Your task to perform on an android device: Toggle the flashlight Image 0: 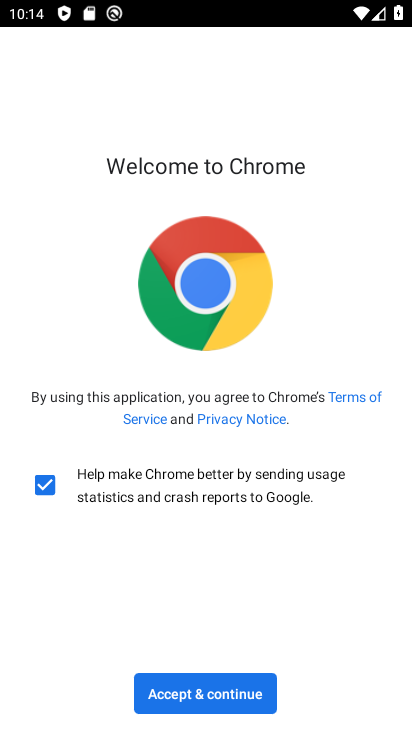
Step 0: press home button
Your task to perform on an android device: Toggle the flashlight Image 1: 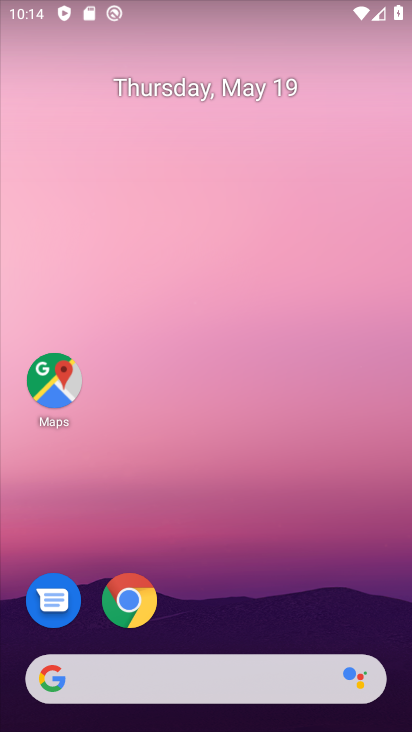
Step 1: drag from (270, 8) to (247, 556)
Your task to perform on an android device: Toggle the flashlight Image 2: 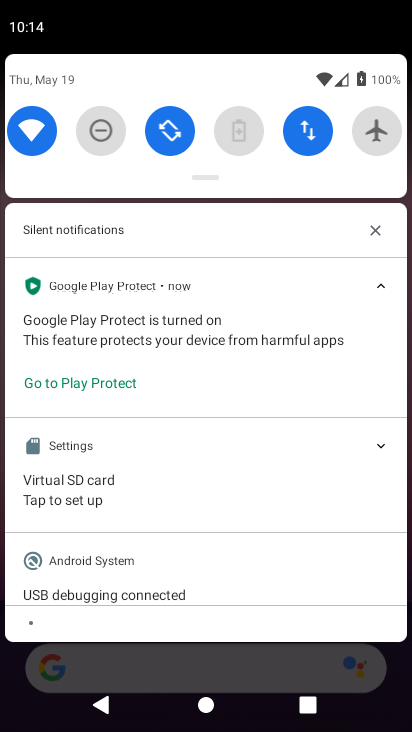
Step 2: drag from (272, 81) to (275, 425)
Your task to perform on an android device: Toggle the flashlight Image 3: 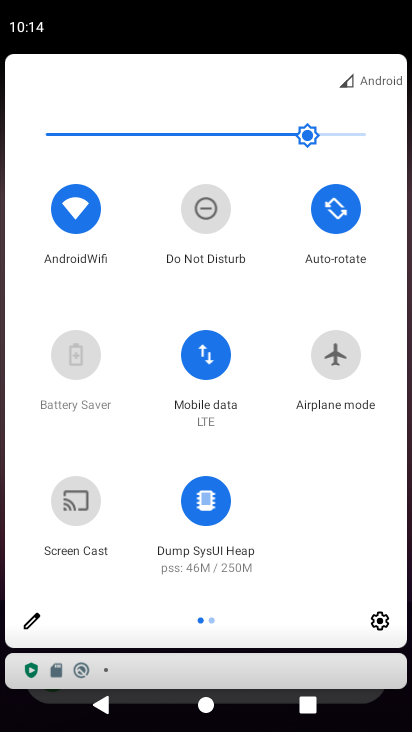
Step 3: click (41, 631)
Your task to perform on an android device: Toggle the flashlight Image 4: 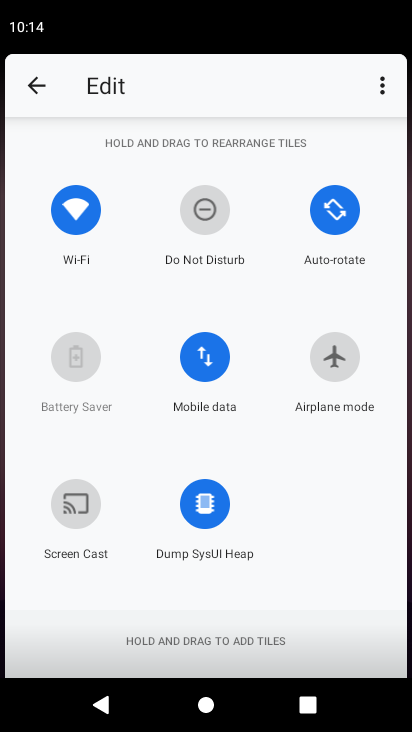
Step 4: task complete